Your task to perform on an android device: Open calendar and show me the first week of next month Image 0: 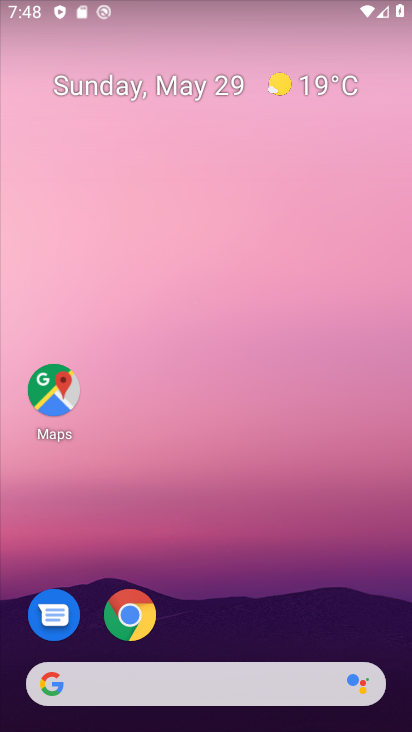
Step 0: drag from (104, 731) to (215, 102)
Your task to perform on an android device: Open calendar and show me the first week of next month Image 1: 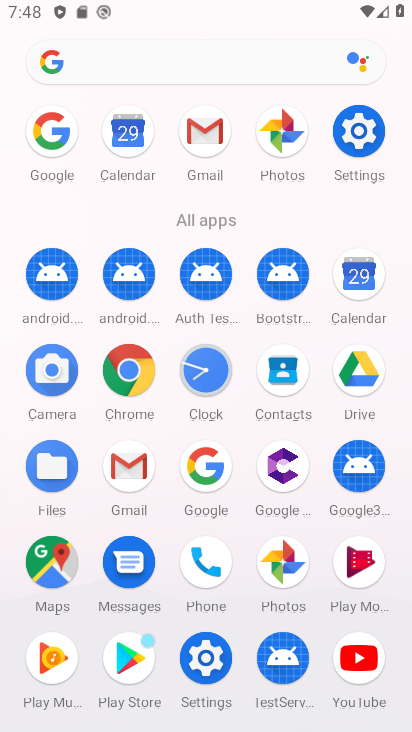
Step 1: click (137, 135)
Your task to perform on an android device: Open calendar and show me the first week of next month Image 2: 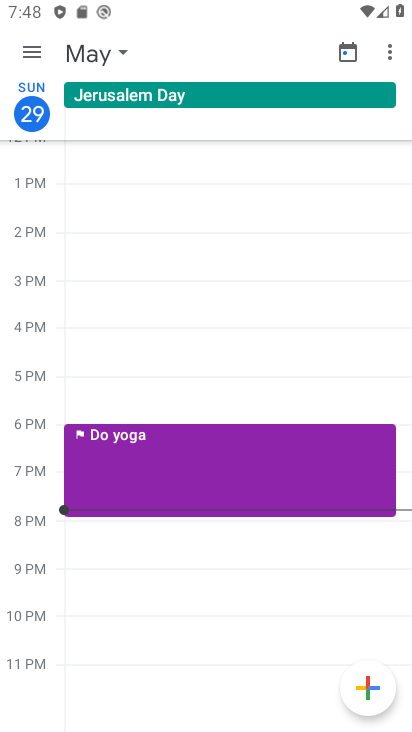
Step 2: click (121, 54)
Your task to perform on an android device: Open calendar and show me the first week of next month Image 3: 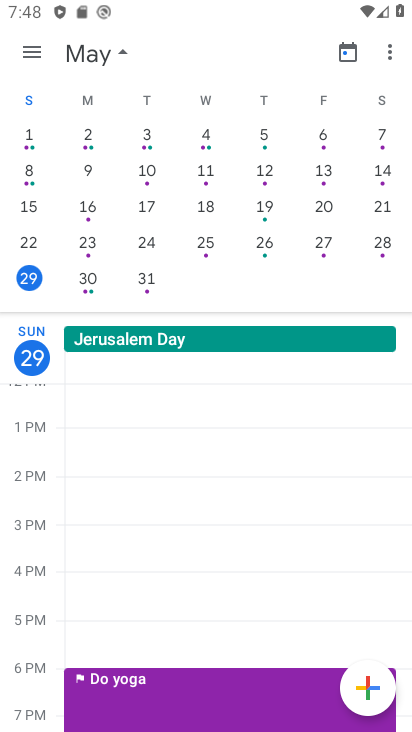
Step 3: drag from (400, 270) to (5, 204)
Your task to perform on an android device: Open calendar and show me the first week of next month Image 4: 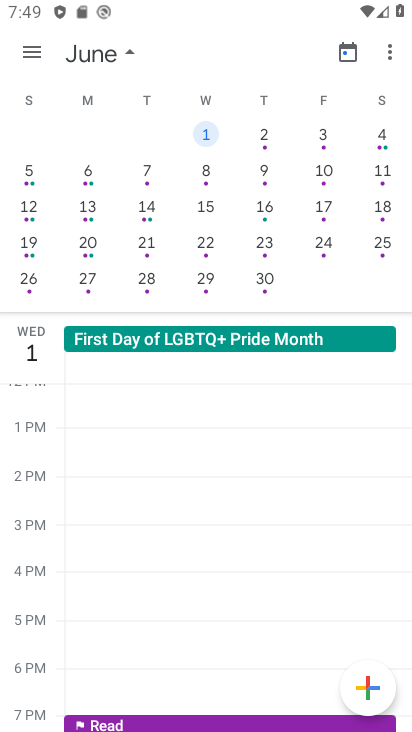
Step 4: click (126, 55)
Your task to perform on an android device: Open calendar and show me the first week of next month Image 5: 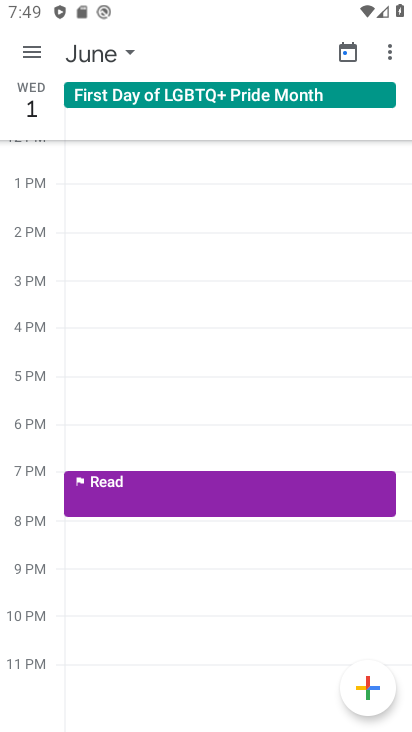
Step 5: click (24, 57)
Your task to perform on an android device: Open calendar and show me the first week of next month Image 6: 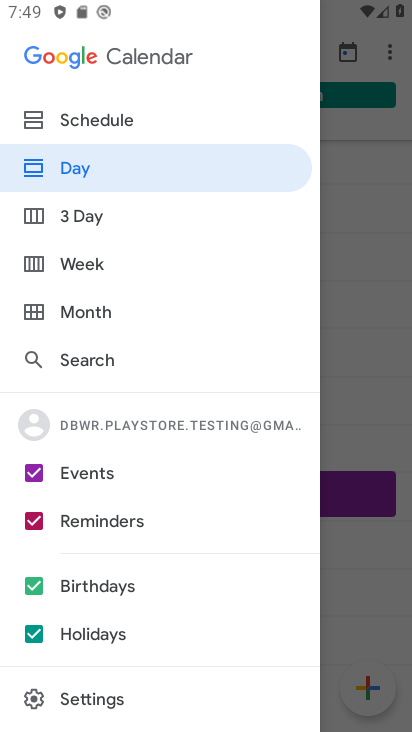
Step 6: click (95, 257)
Your task to perform on an android device: Open calendar and show me the first week of next month Image 7: 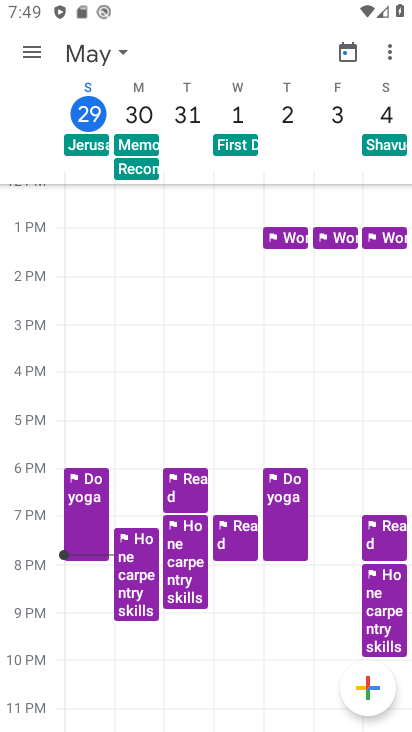
Step 7: task complete